Your task to perform on an android device: Clear the shopping cart on amazon. Search for logitech g pro on amazon, select the first entry, add it to the cart, then select checkout. Image 0: 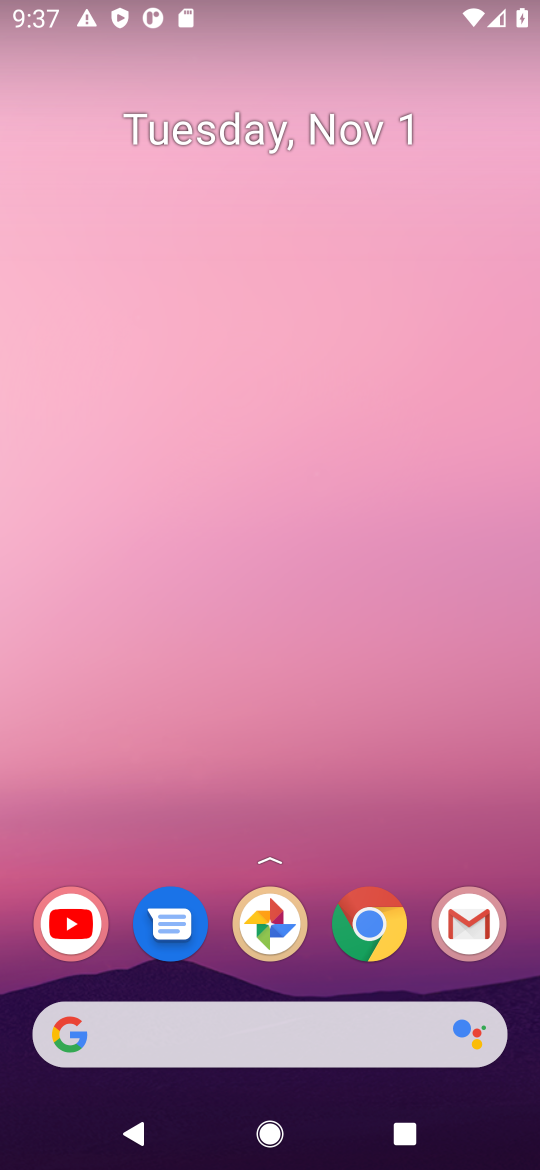
Step 0: click (378, 946)
Your task to perform on an android device: Clear the shopping cart on amazon. Search for logitech g pro on amazon, select the first entry, add it to the cart, then select checkout. Image 1: 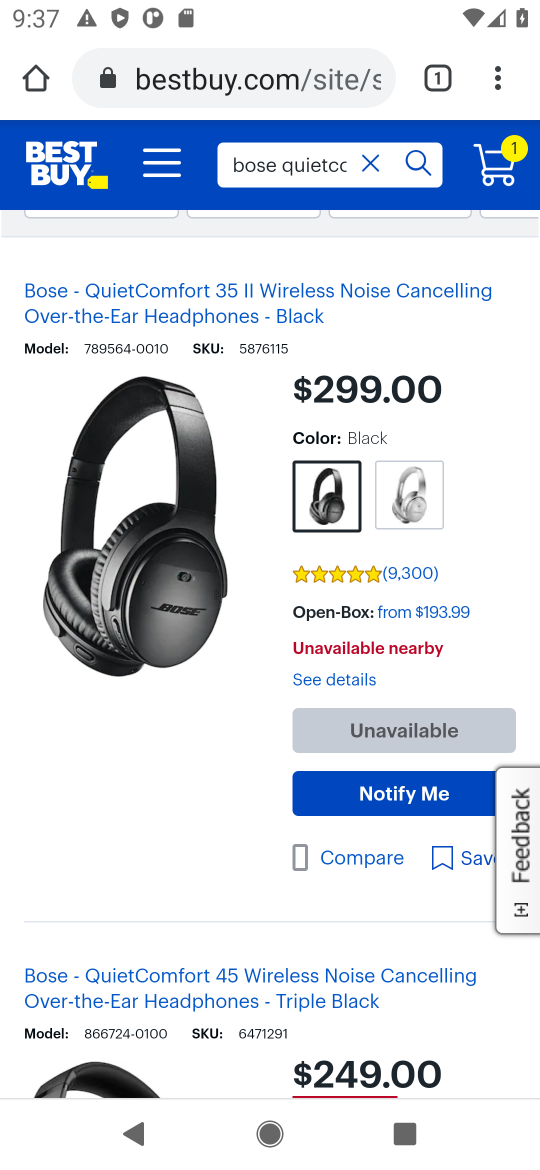
Step 1: click (305, 86)
Your task to perform on an android device: Clear the shopping cart on amazon. Search for logitech g pro on amazon, select the first entry, add it to the cart, then select checkout. Image 2: 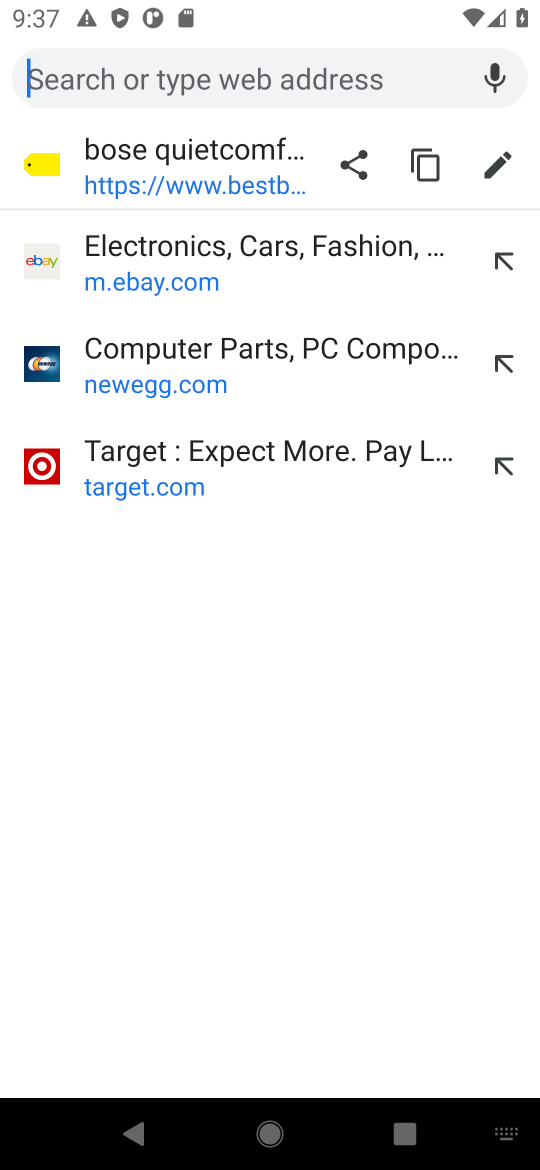
Step 2: type "amazon"
Your task to perform on an android device: Clear the shopping cart on amazon. Search for logitech g pro on amazon, select the first entry, add it to the cart, then select checkout. Image 3: 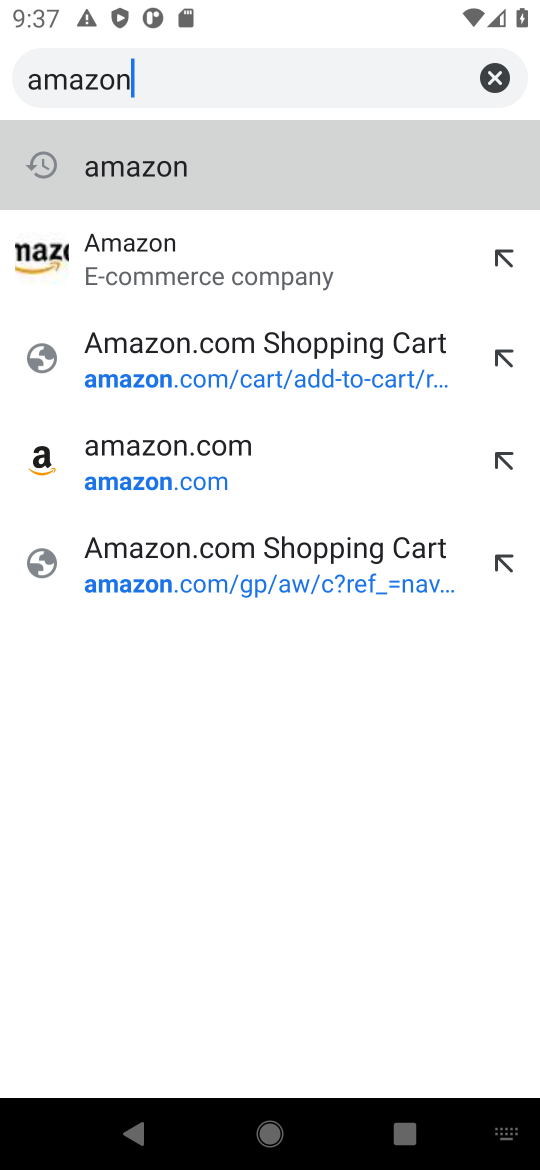
Step 3: click (310, 183)
Your task to perform on an android device: Clear the shopping cart on amazon. Search for logitech g pro on amazon, select the first entry, add it to the cart, then select checkout. Image 4: 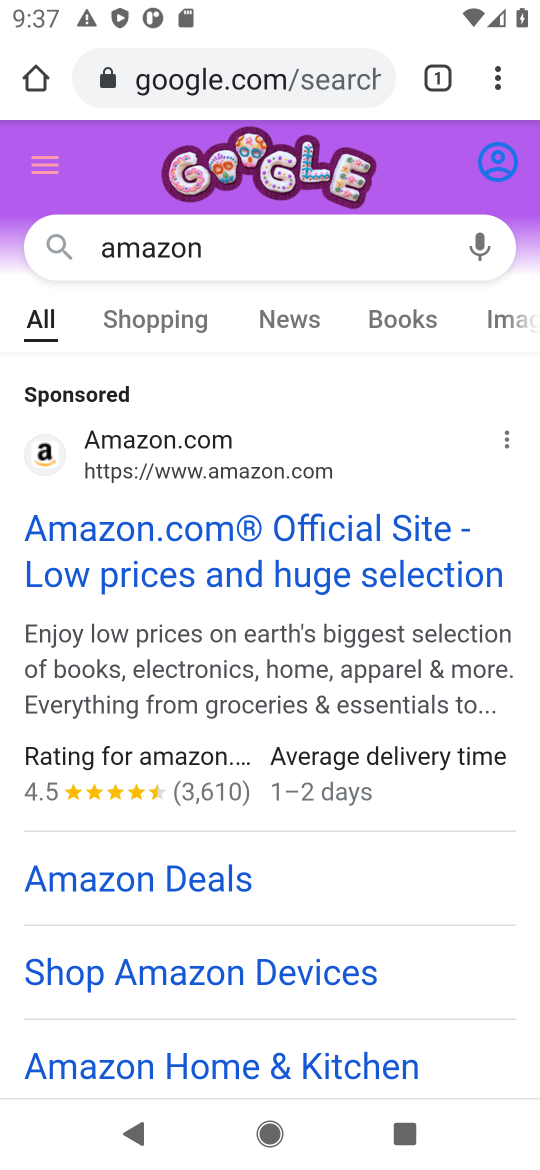
Step 4: click (138, 538)
Your task to perform on an android device: Clear the shopping cart on amazon. Search for logitech g pro on amazon, select the first entry, add it to the cart, then select checkout. Image 5: 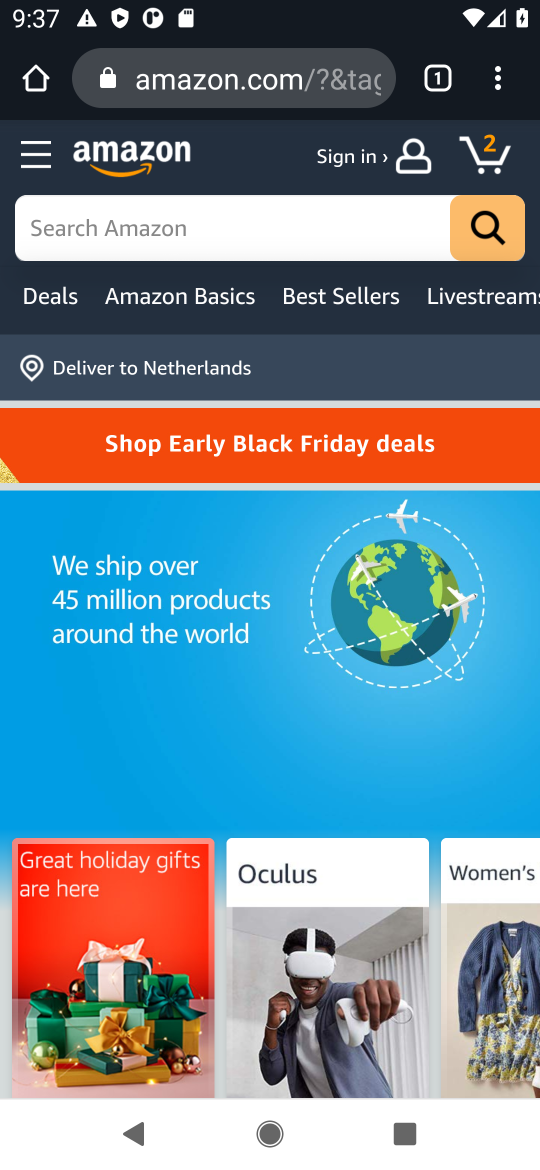
Step 5: click (205, 228)
Your task to perform on an android device: Clear the shopping cart on amazon. Search for logitech g pro on amazon, select the first entry, add it to the cart, then select checkout. Image 6: 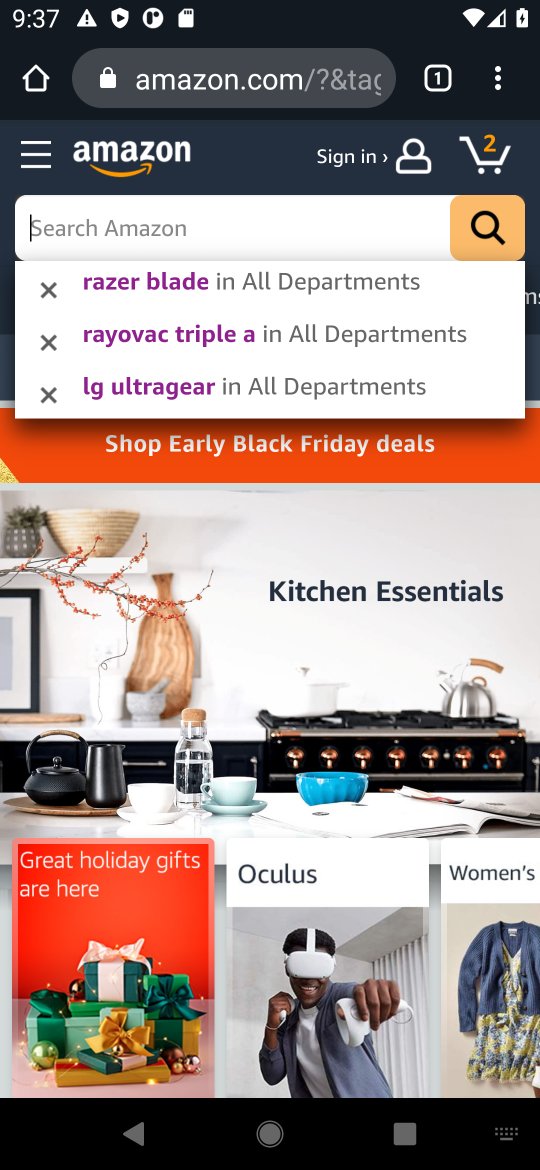
Step 6: click (486, 158)
Your task to perform on an android device: Clear the shopping cart on amazon. Search for logitech g pro on amazon, select the first entry, add it to the cart, then select checkout. Image 7: 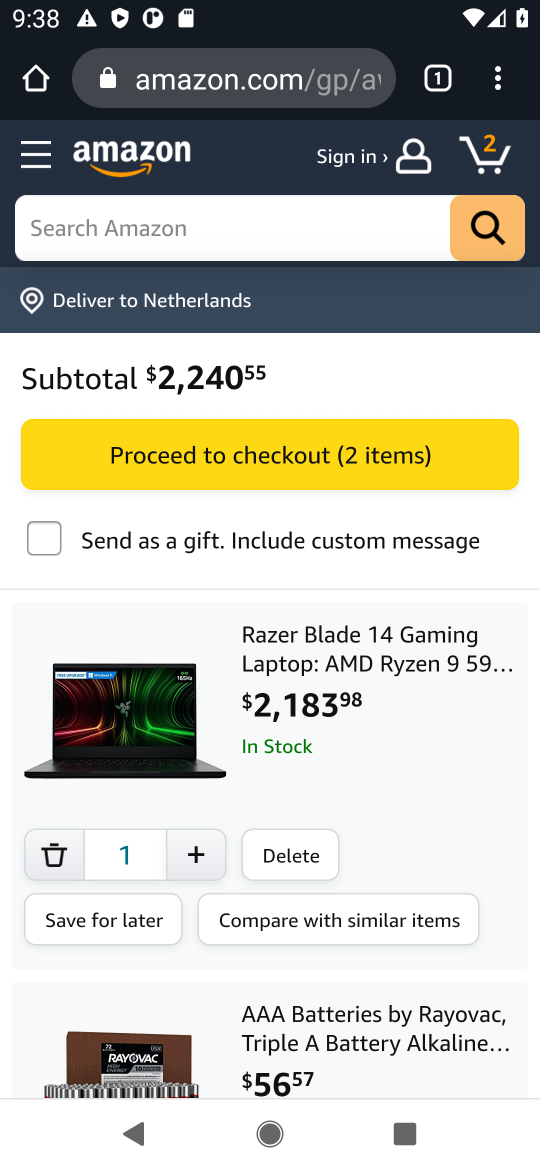
Step 7: click (279, 861)
Your task to perform on an android device: Clear the shopping cart on amazon. Search for logitech g pro on amazon, select the first entry, add it to the cart, then select checkout. Image 8: 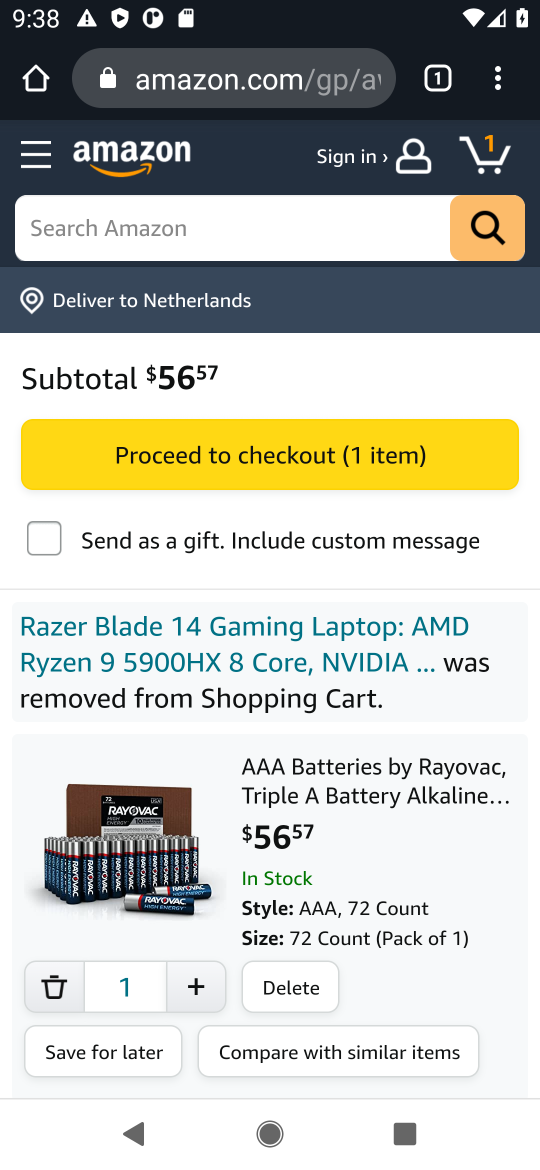
Step 8: click (292, 985)
Your task to perform on an android device: Clear the shopping cart on amazon. Search for logitech g pro on amazon, select the first entry, add it to the cart, then select checkout. Image 9: 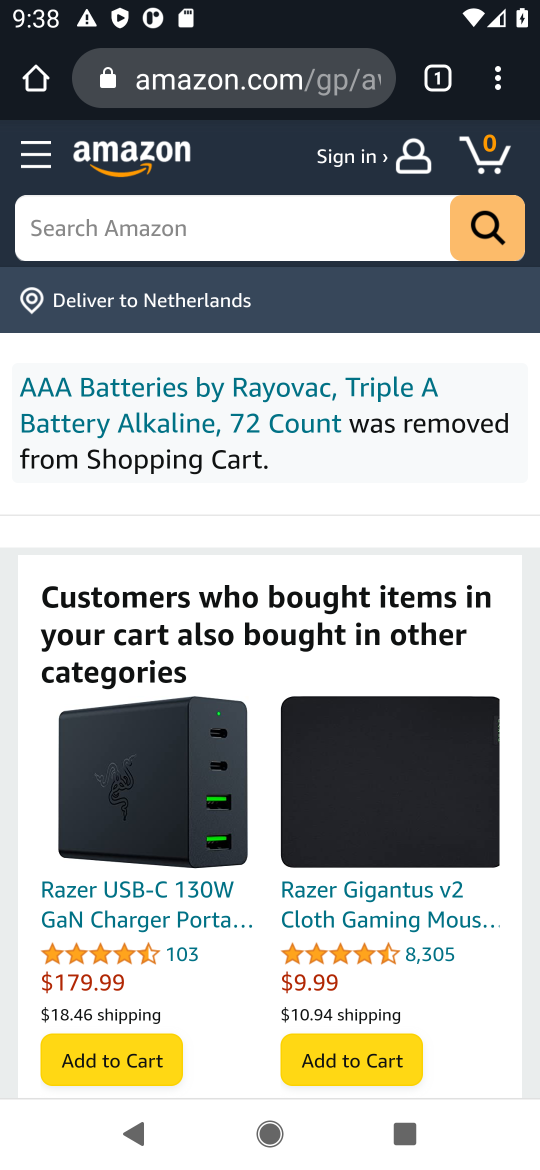
Step 9: click (261, 228)
Your task to perform on an android device: Clear the shopping cart on amazon. Search for logitech g pro on amazon, select the first entry, add it to the cart, then select checkout. Image 10: 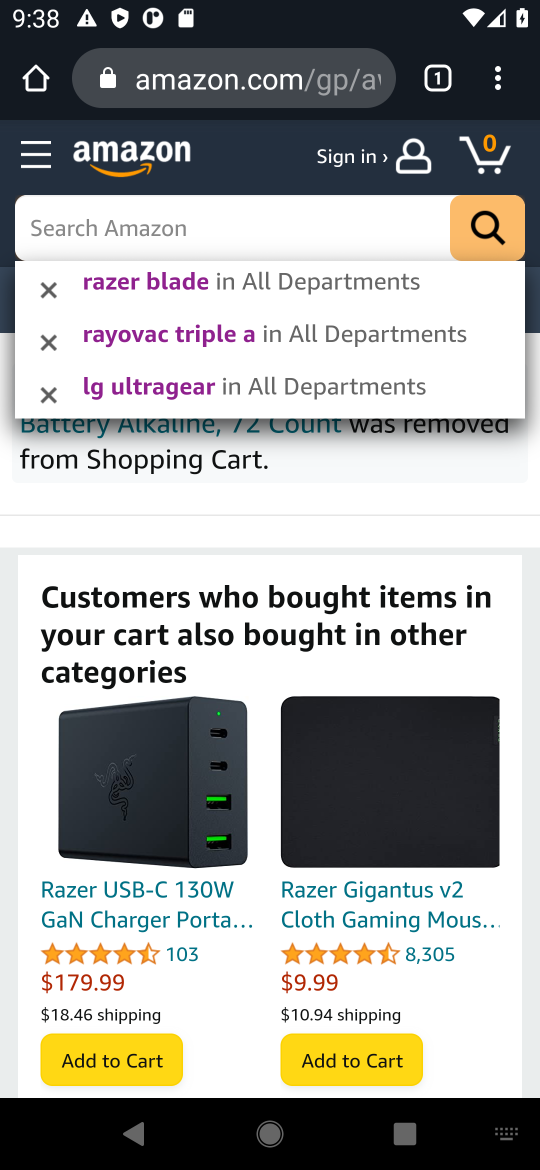
Step 10: type "logitech g pro"
Your task to perform on an android device: Clear the shopping cart on amazon. Search for logitech g pro on amazon, select the first entry, add it to the cart, then select checkout. Image 11: 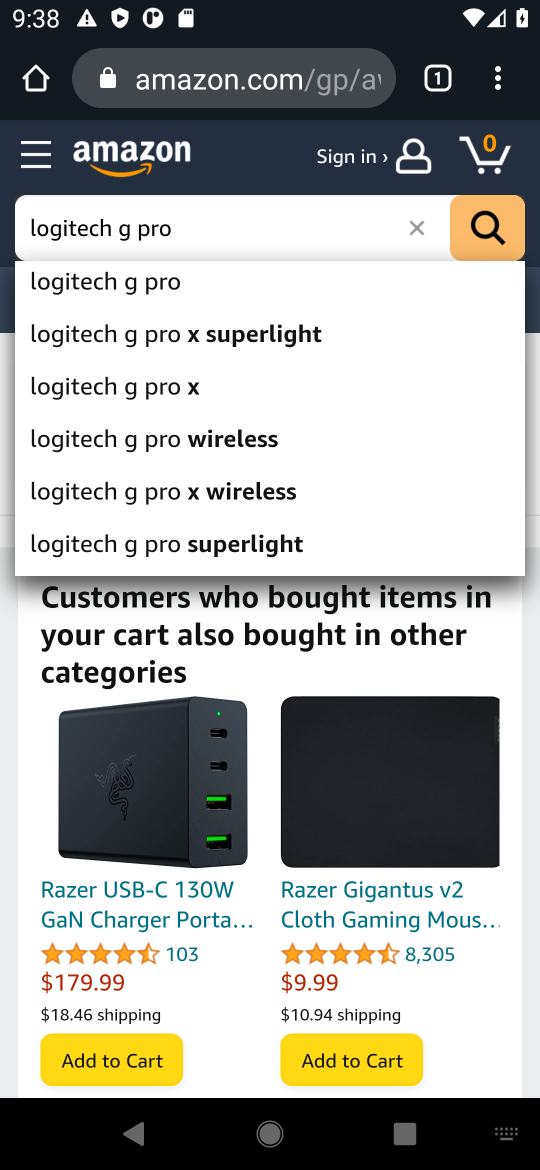
Step 11: click (63, 280)
Your task to perform on an android device: Clear the shopping cart on amazon. Search for logitech g pro on amazon, select the first entry, add it to the cart, then select checkout. Image 12: 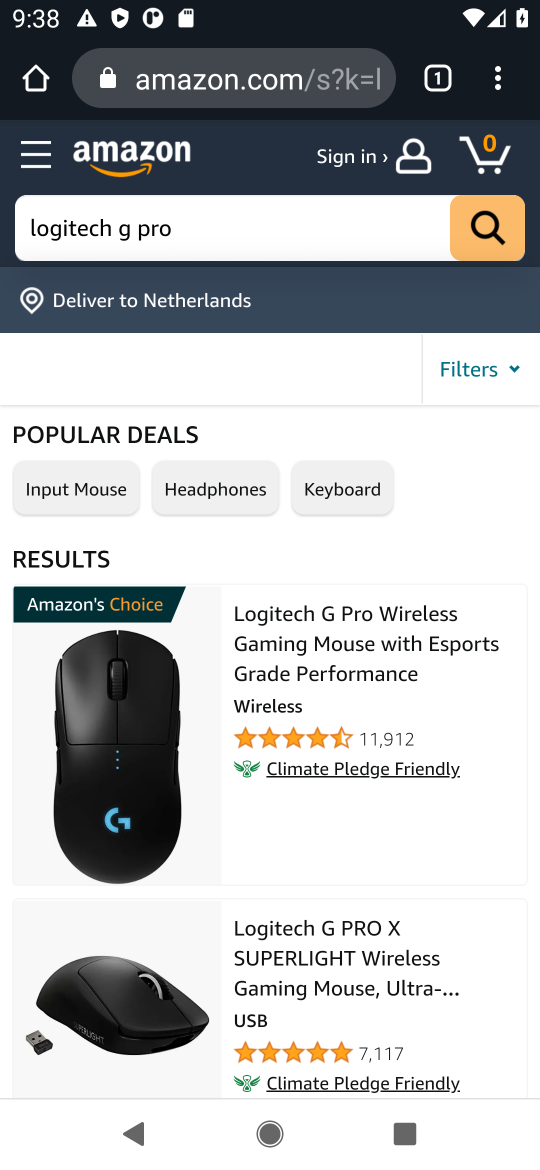
Step 12: drag from (283, 862) to (327, 512)
Your task to perform on an android device: Clear the shopping cart on amazon. Search for logitech g pro on amazon, select the first entry, add it to the cart, then select checkout. Image 13: 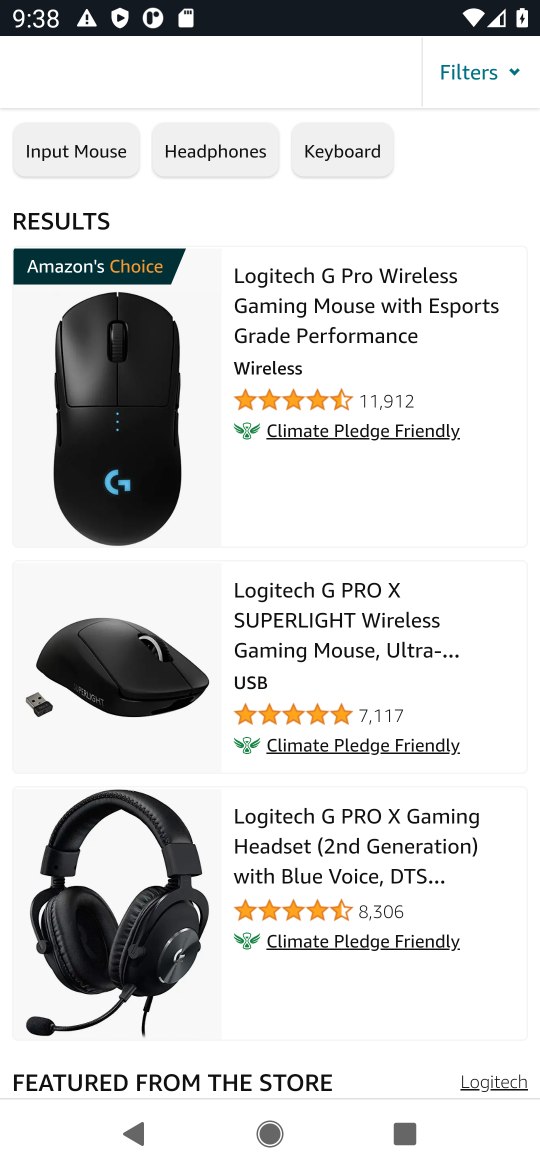
Step 13: click (141, 386)
Your task to perform on an android device: Clear the shopping cart on amazon. Search for logitech g pro on amazon, select the first entry, add it to the cart, then select checkout. Image 14: 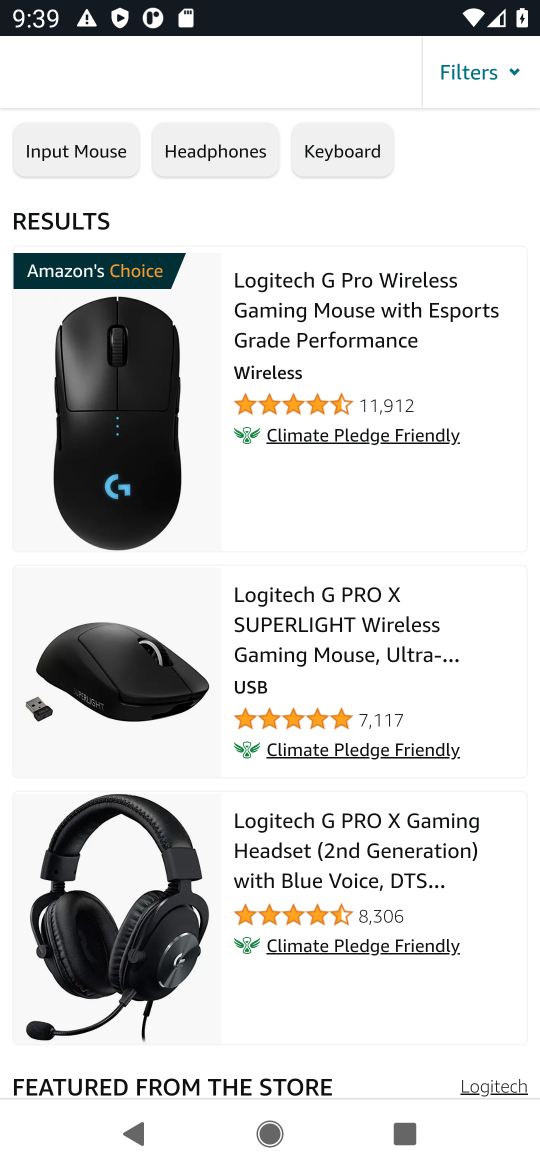
Step 14: click (334, 322)
Your task to perform on an android device: Clear the shopping cart on amazon. Search for logitech g pro on amazon, select the first entry, add it to the cart, then select checkout. Image 15: 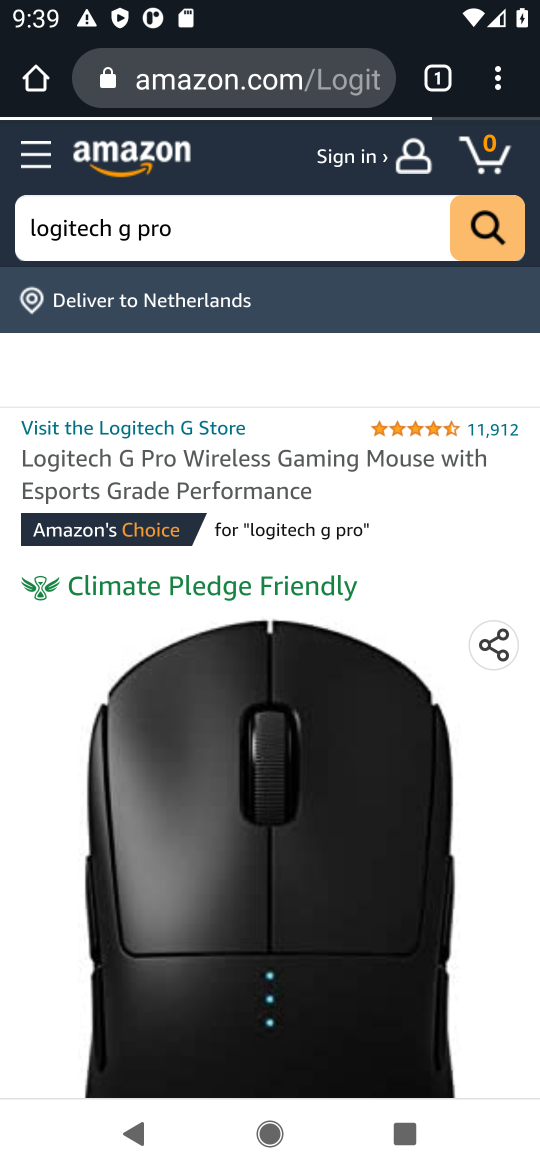
Step 15: drag from (500, 893) to (493, 4)
Your task to perform on an android device: Clear the shopping cart on amazon. Search for logitech g pro on amazon, select the first entry, add it to the cart, then select checkout. Image 16: 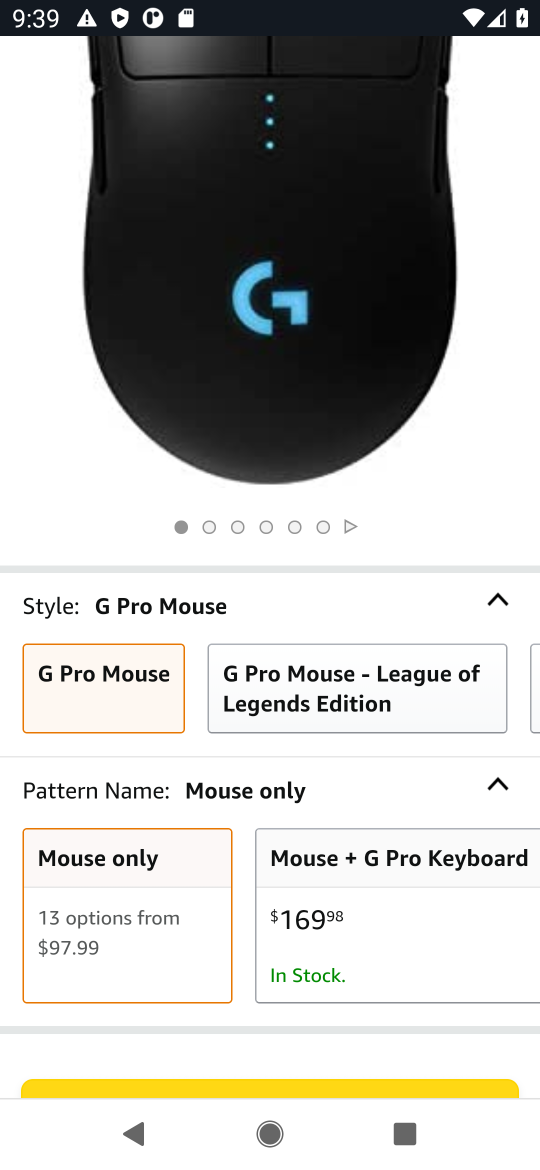
Step 16: drag from (259, 1040) to (305, 240)
Your task to perform on an android device: Clear the shopping cart on amazon. Search for logitech g pro on amazon, select the first entry, add it to the cart, then select checkout. Image 17: 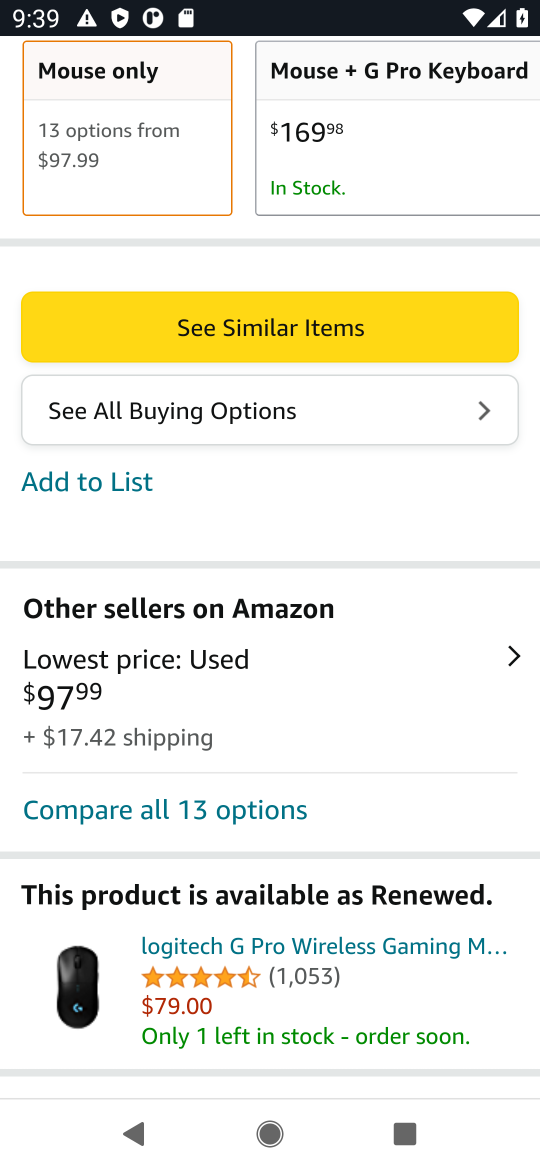
Step 17: drag from (311, 823) to (367, 15)
Your task to perform on an android device: Clear the shopping cart on amazon. Search for logitech g pro on amazon, select the first entry, add it to the cart, then select checkout. Image 18: 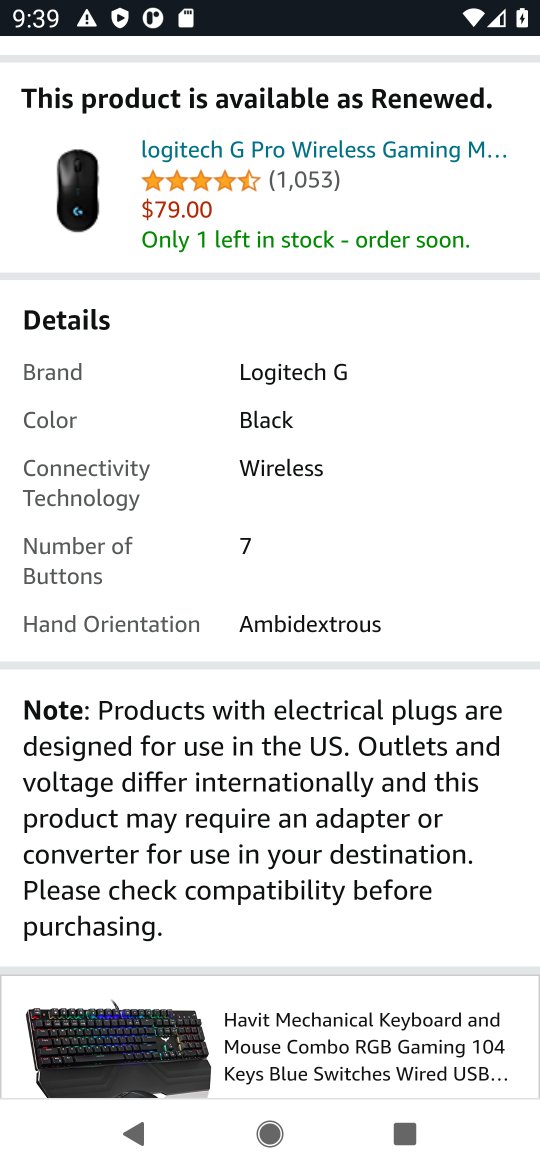
Step 18: drag from (230, 675) to (285, 491)
Your task to perform on an android device: Clear the shopping cart on amazon. Search for logitech g pro on amazon, select the first entry, add it to the cart, then select checkout. Image 19: 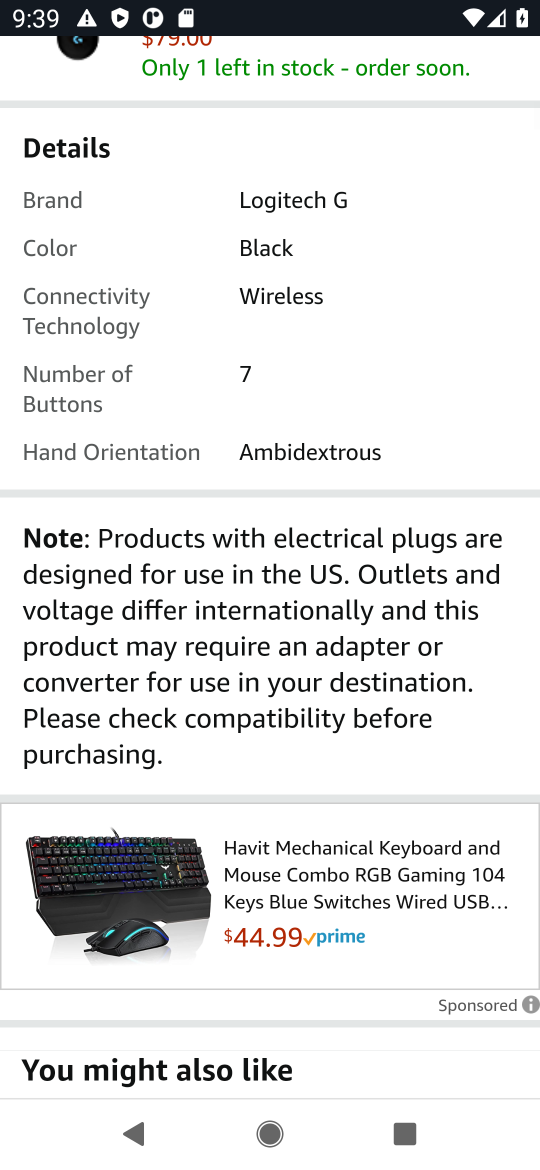
Step 19: press back button
Your task to perform on an android device: Clear the shopping cart on amazon. Search for logitech g pro on amazon, select the first entry, add it to the cart, then select checkout. Image 20: 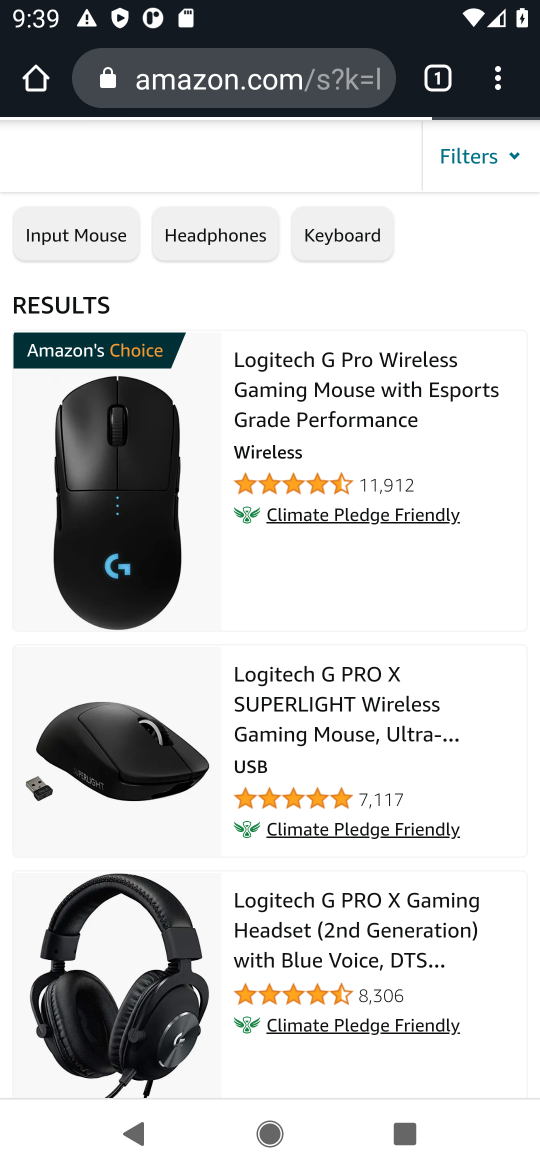
Step 20: drag from (383, 630) to (399, 330)
Your task to perform on an android device: Clear the shopping cart on amazon. Search for logitech g pro on amazon, select the first entry, add it to the cart, then select checkout. Image 21: 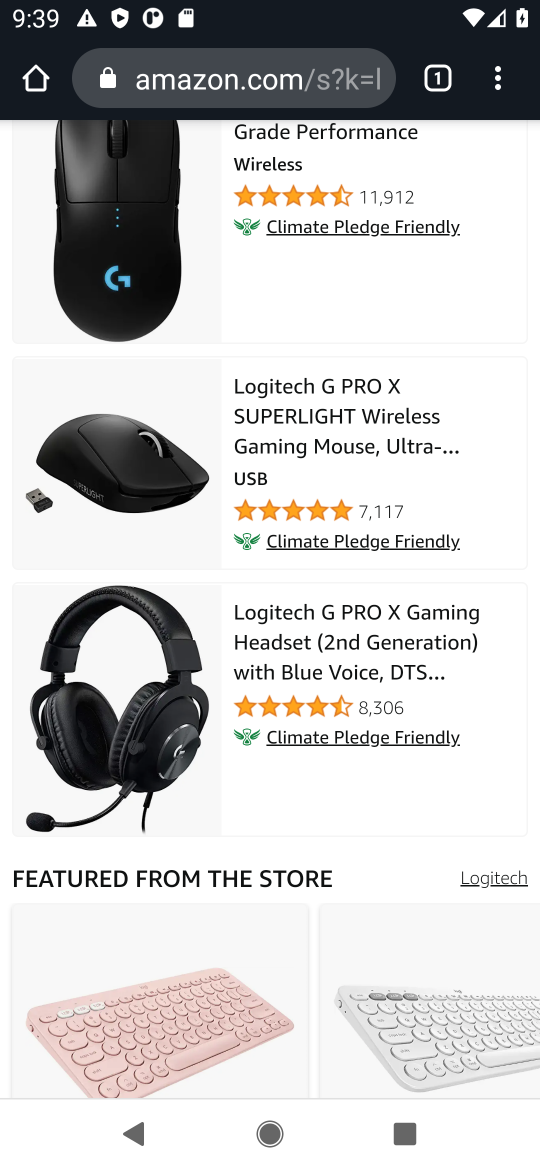
Step 21: drag from (283, 841) to (299, 515)
Your task to perform on an android device: Clear the shopping cart on amazon. Search for logitech g pro on amazon, select the first entry, add it to the cart, then select checkout. Image 22: 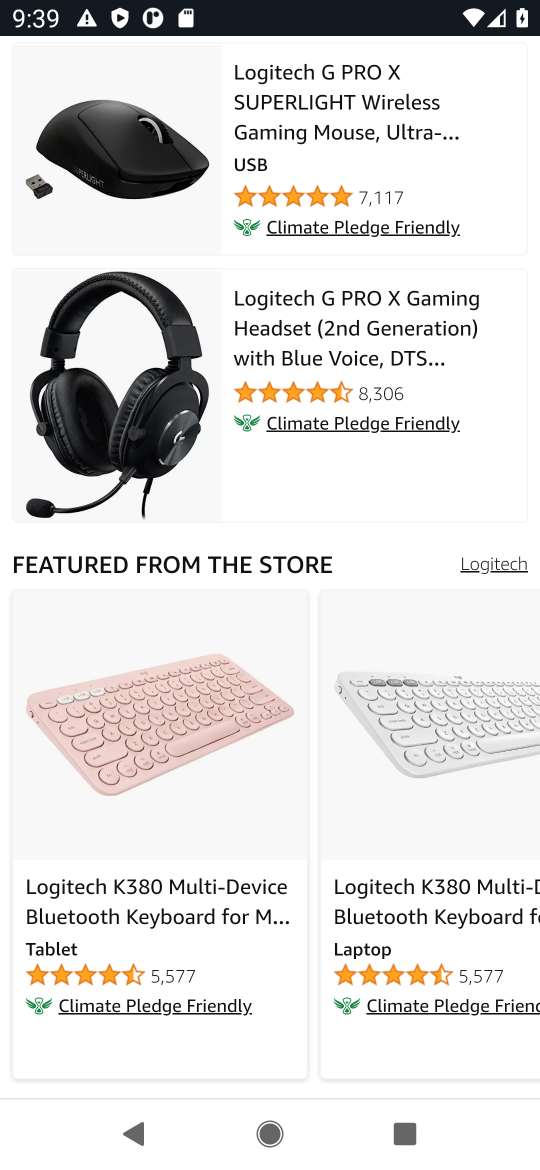
Step 22: drag from (314, 832) to (323, 1163)
Your task to perform on an android device: Clear the shopping cart on amazon. Search for logitech g pro on amazon, select the first entry, add it to the cart, then select checkout. Image 23: 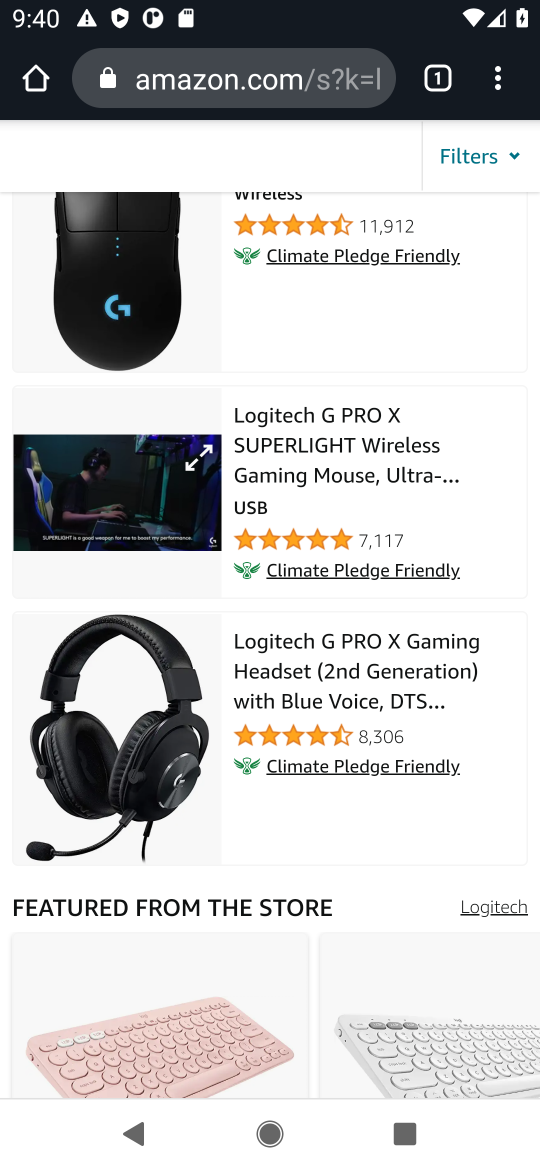
Step 23: drag from (392, 390) to (416, 1165)
Your task to perform on an android device: Clear the shopping cart on amazon. Search for logitech g pro on amazon, select the first entry, add it to the cart, then select checkout. Image 24: 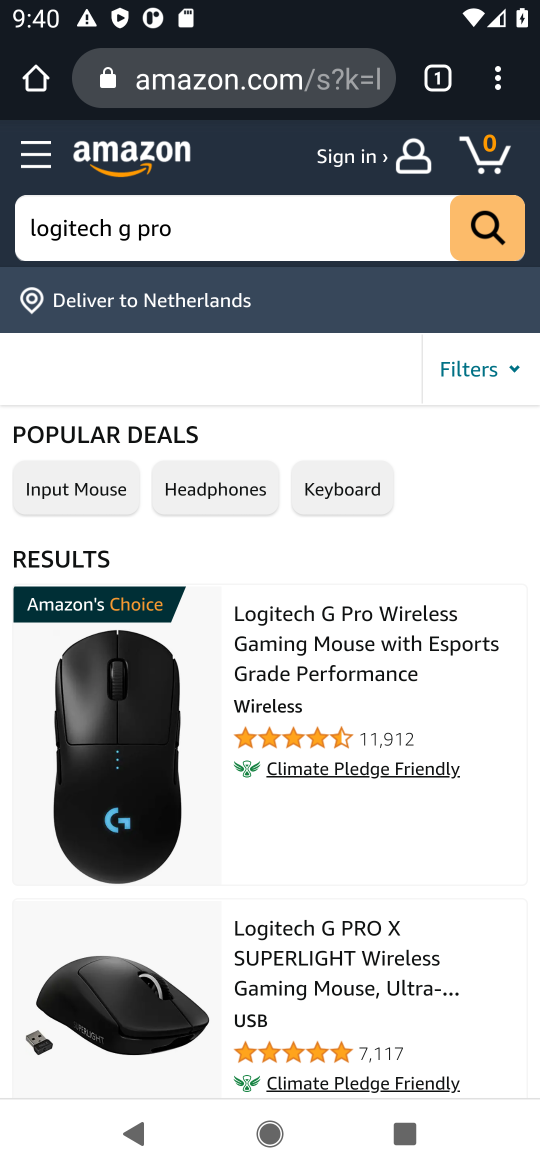
Step 24: click (347, 638)
Your task to perform on an android device: Clear the shopping cart on amazon. Search for logitech g pro on amazon, select the first entry, add it to the cart, then select checkout. Image 25: 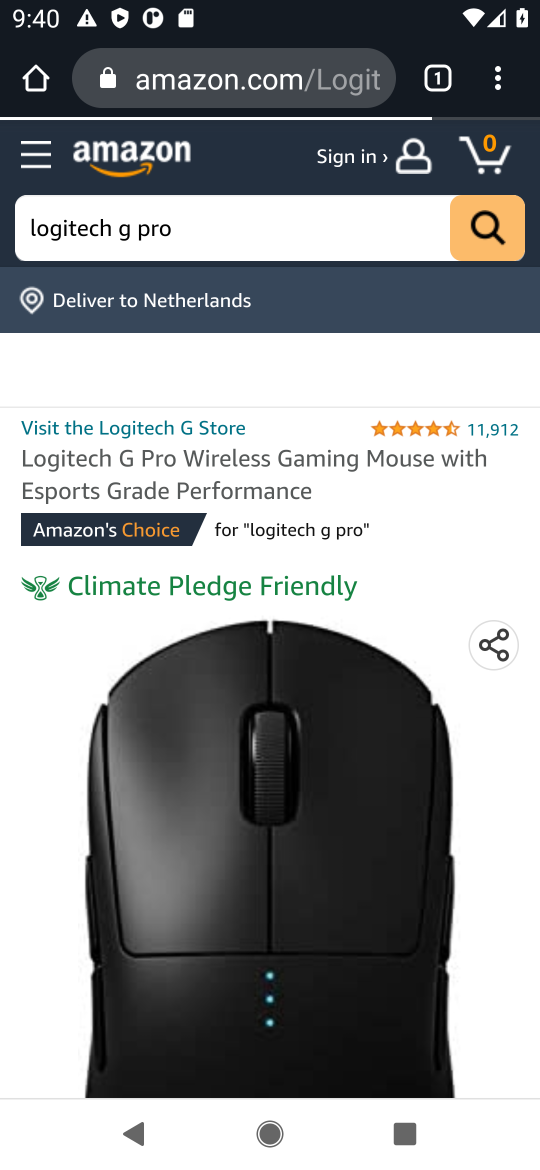
Step 25: task complete